Your task to perform on an android device: Open Google Maps and go to "Timeline" Image 0: 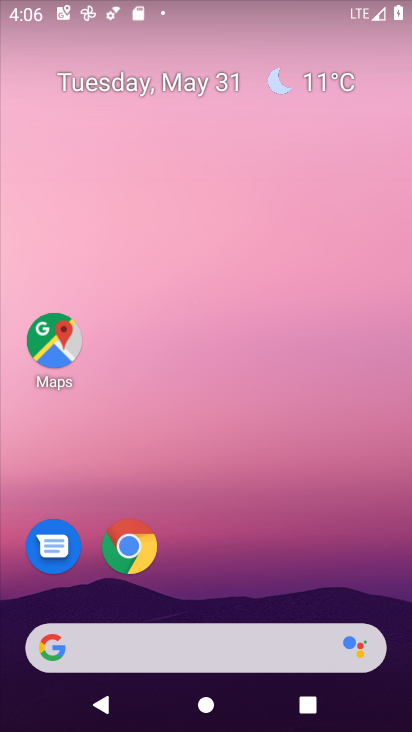
Step 0: drag from (278, 565) to (277, 613)
Your task to perform on an android device: Open Google Maps and go to "Timeline" Image 1: 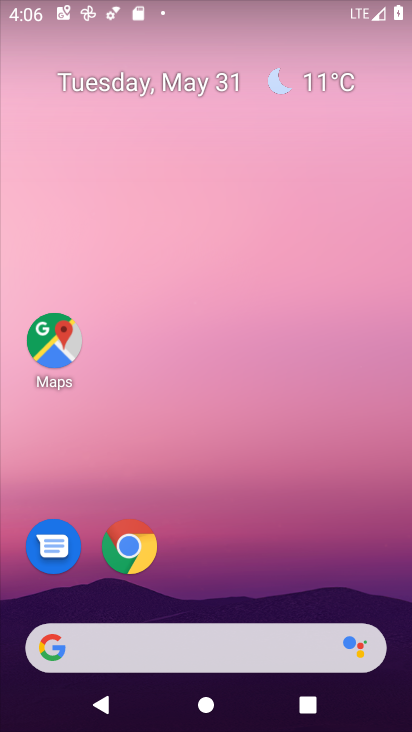
Step 1: click (67, 334)
Your task to perform on an android device: Open Google Maps and go to "Timeline" Image 2: 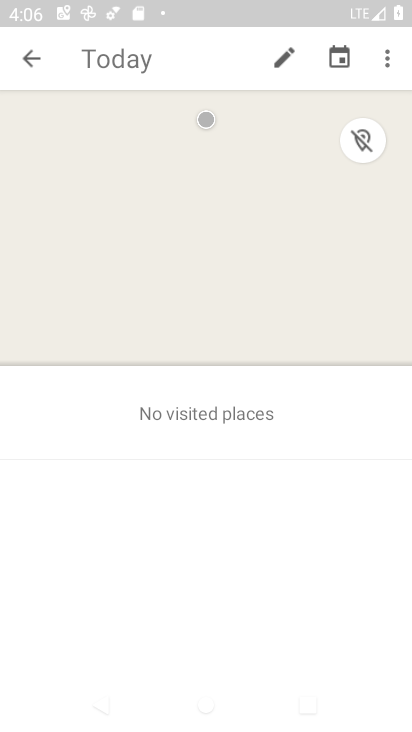
Step 2: click (36, 60)
Your task to perform on an android device: Open Google Maps and go to "Timeline" Image 3: 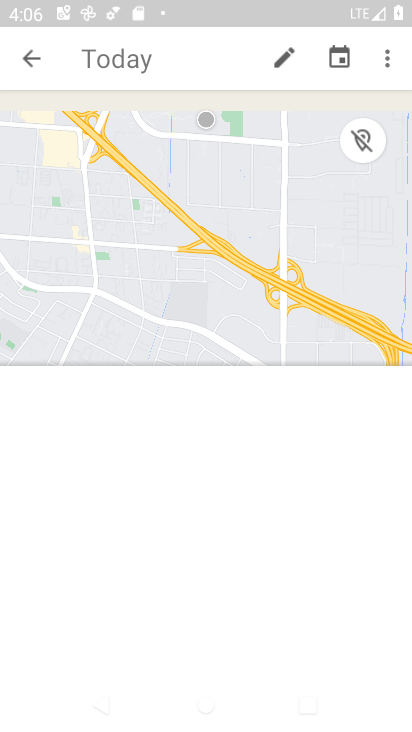
Step 3: task complete